Your task to perform on an android device: Go to battery settings Image 0: 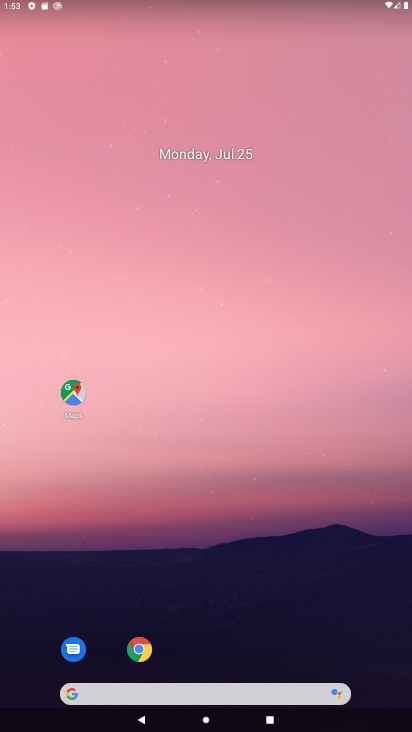
Step 0: drag from (378, 682) to (320, 64)
Your task to perform on an android device: Go to battery settings Image 1: 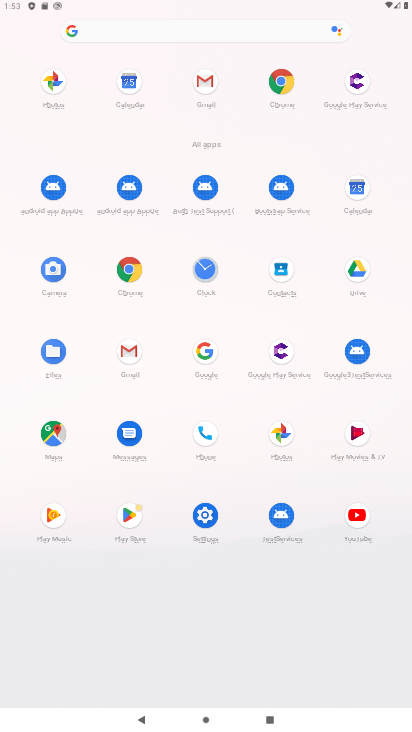
Step 1: click (205, 518)
Your task to perform on an android device: Go to battery settings Image 2: 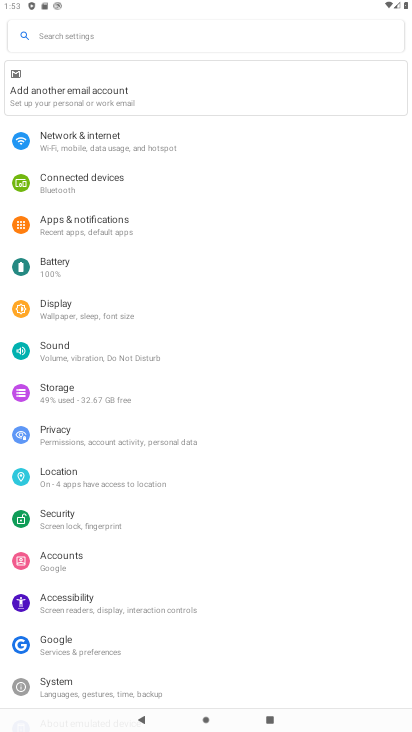
Step 2: click (52, 269)
Your task to perform on an android device: Go to battery settings Image 3: 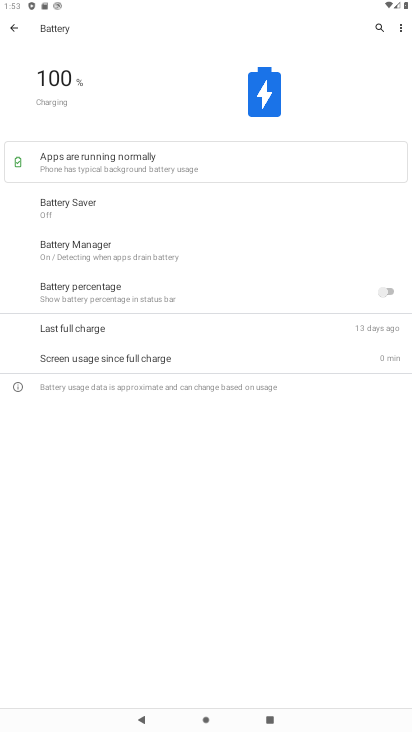
Step 3: task complete